Your task to perform on an android device: visit the assistant section in the google photos Image 0: 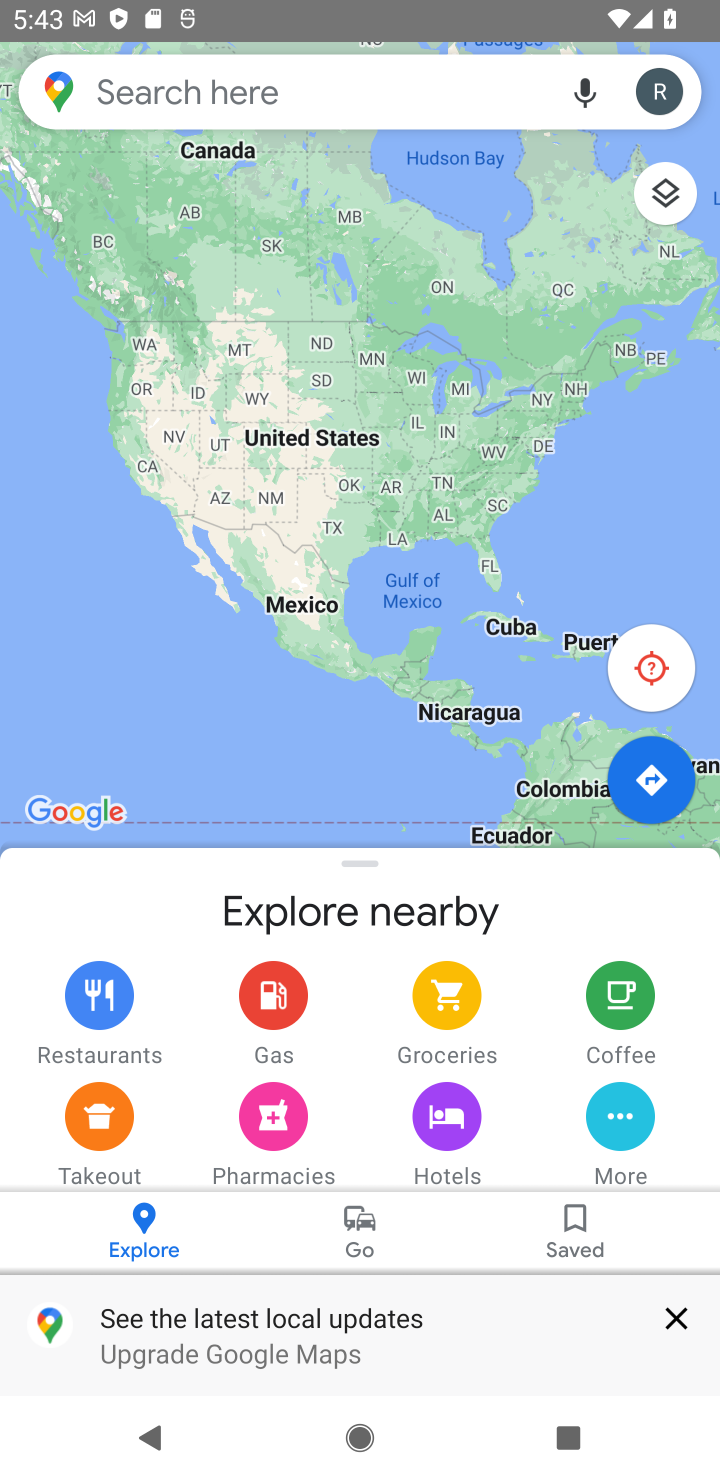
Step 0: press home button
Your task to perform on an android device: visit the assistant section in the google photos Image 1: 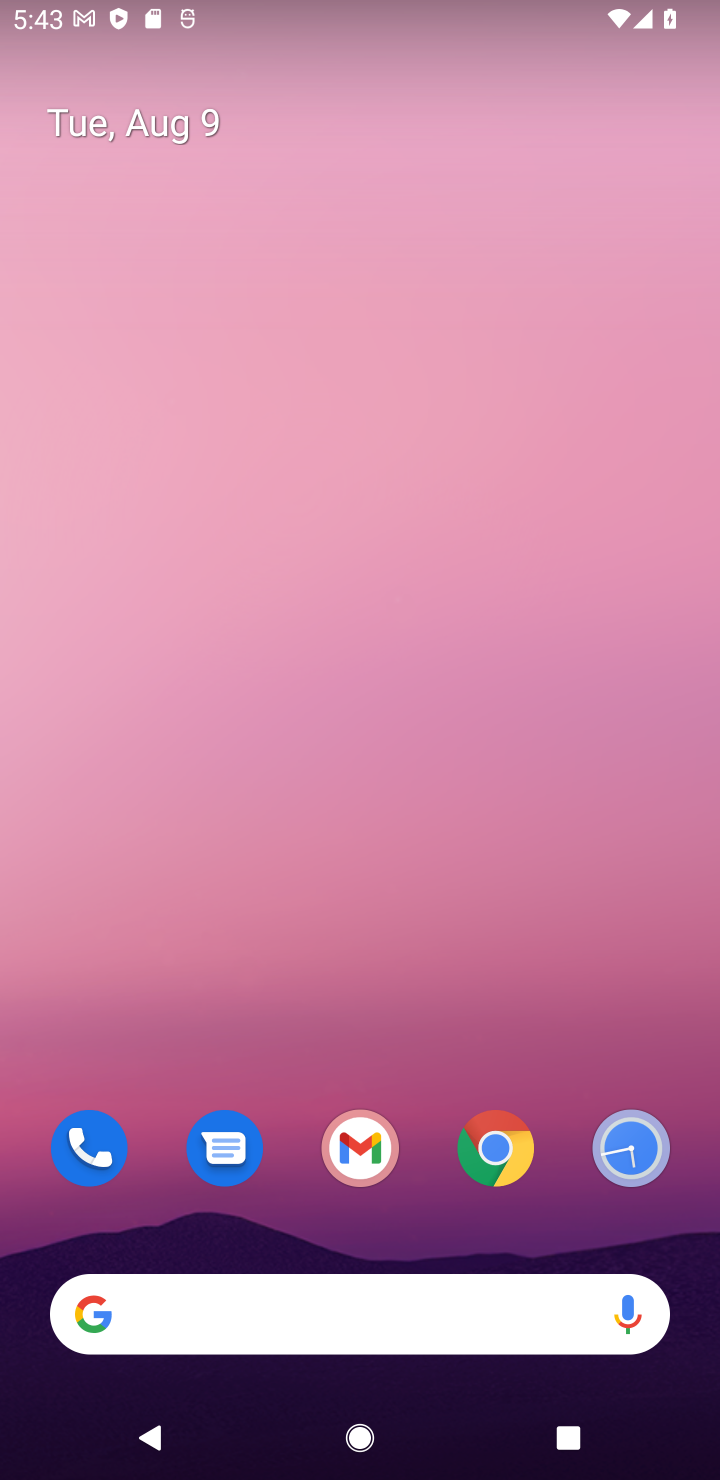
Step 1: drag from (327, 1061) to (318, 232)
Your task to perform on an android device: visit the assistant section in the google photos Image 2: 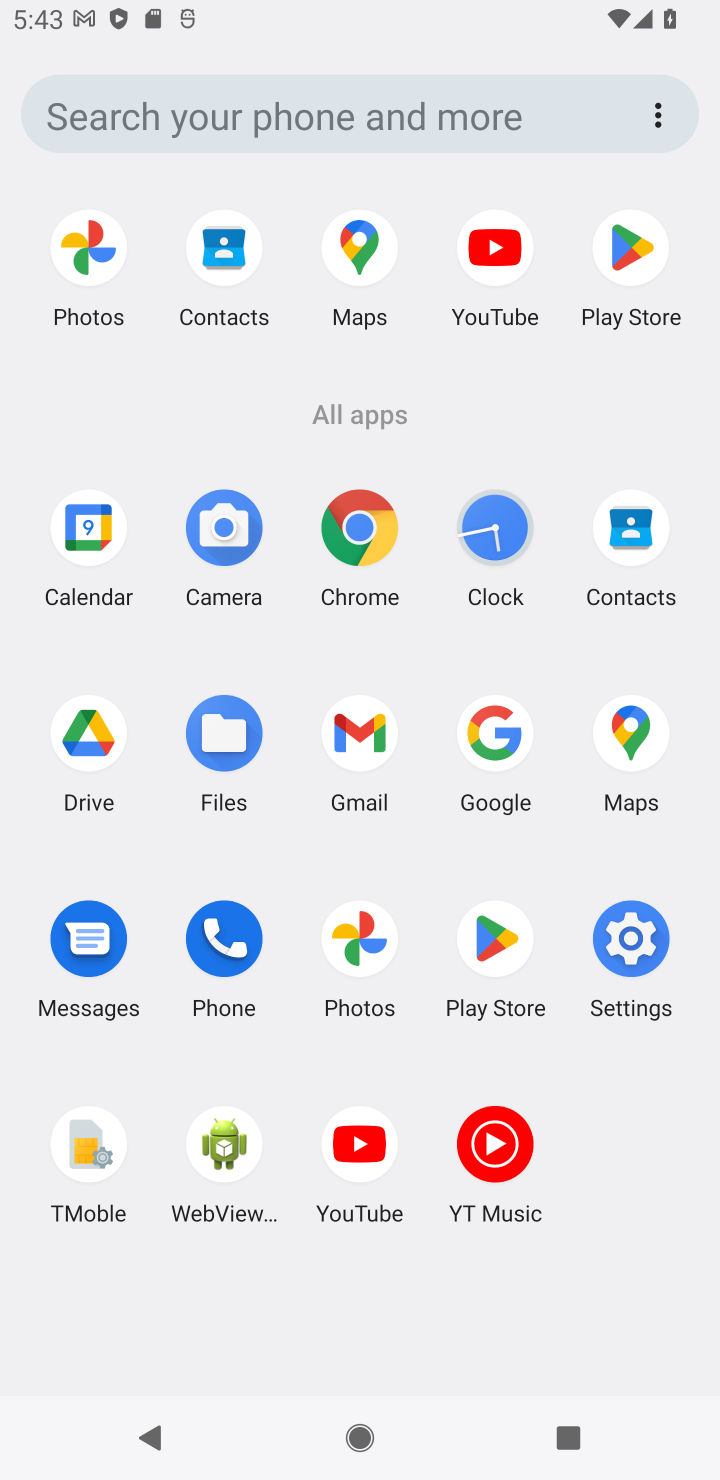
Step 2: click (351, 980)
Your task to perform on an android device: visit the assistant section in the google photos Image 3: 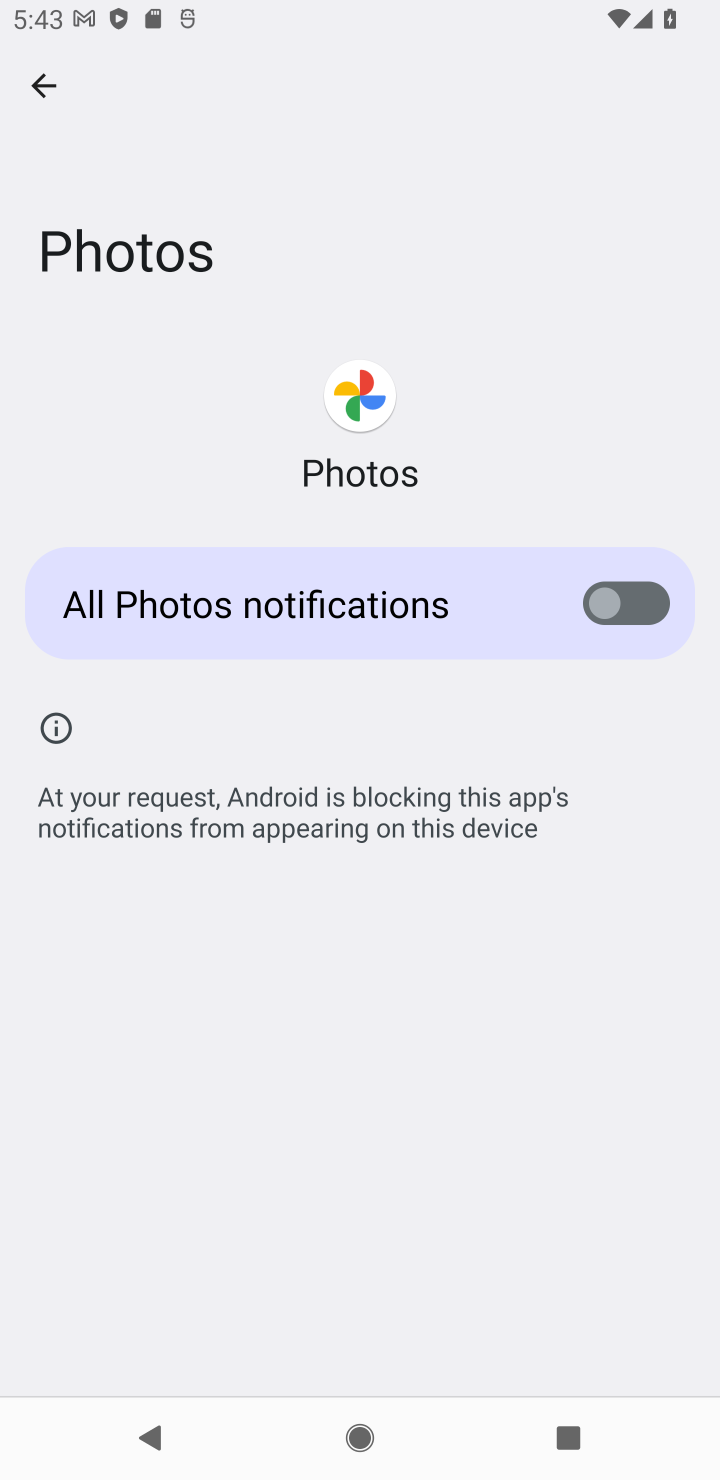
Step 3: click (40, 76)
Your task to perform on an android device: visit the assistant section in the google photos Image 4: 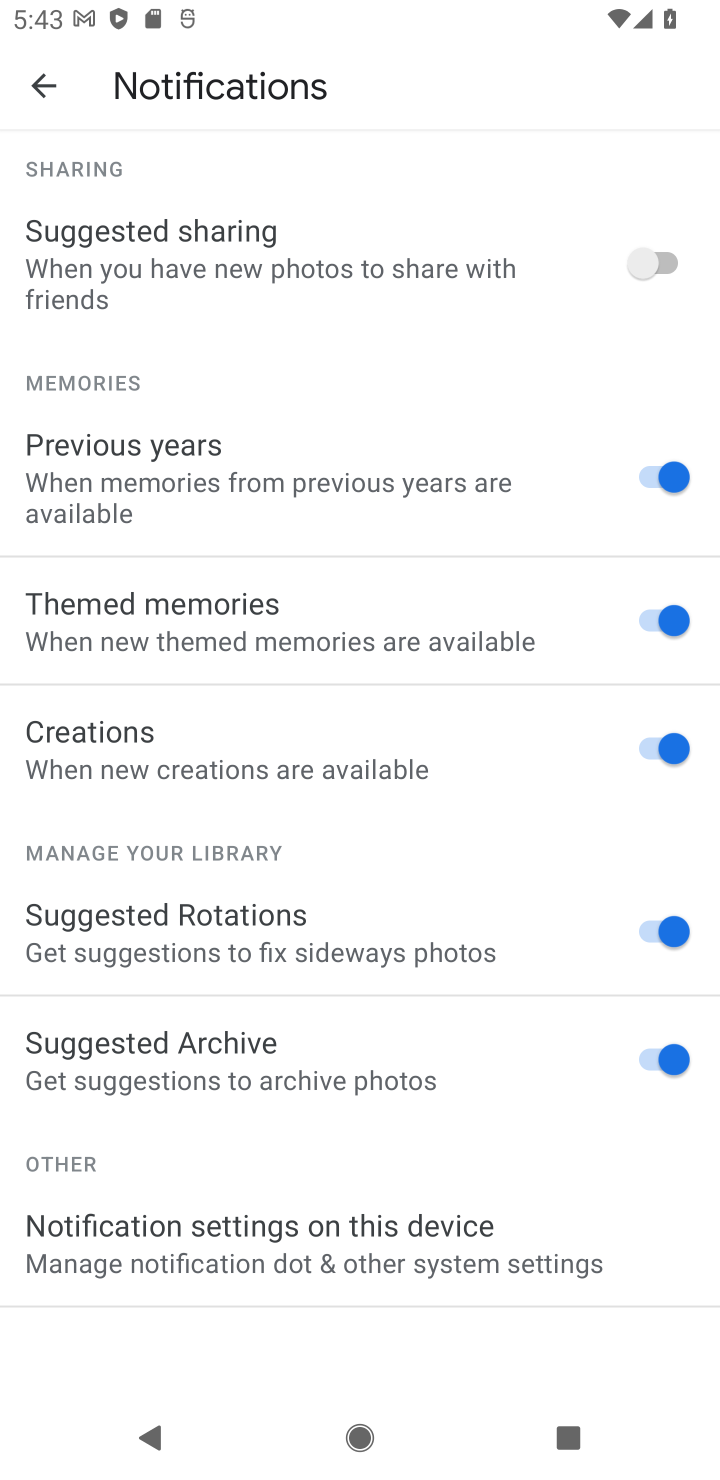
Step 4: click (54, 90)
Your task to perform on an android device: visit the assistant section in the google photos Image 5: 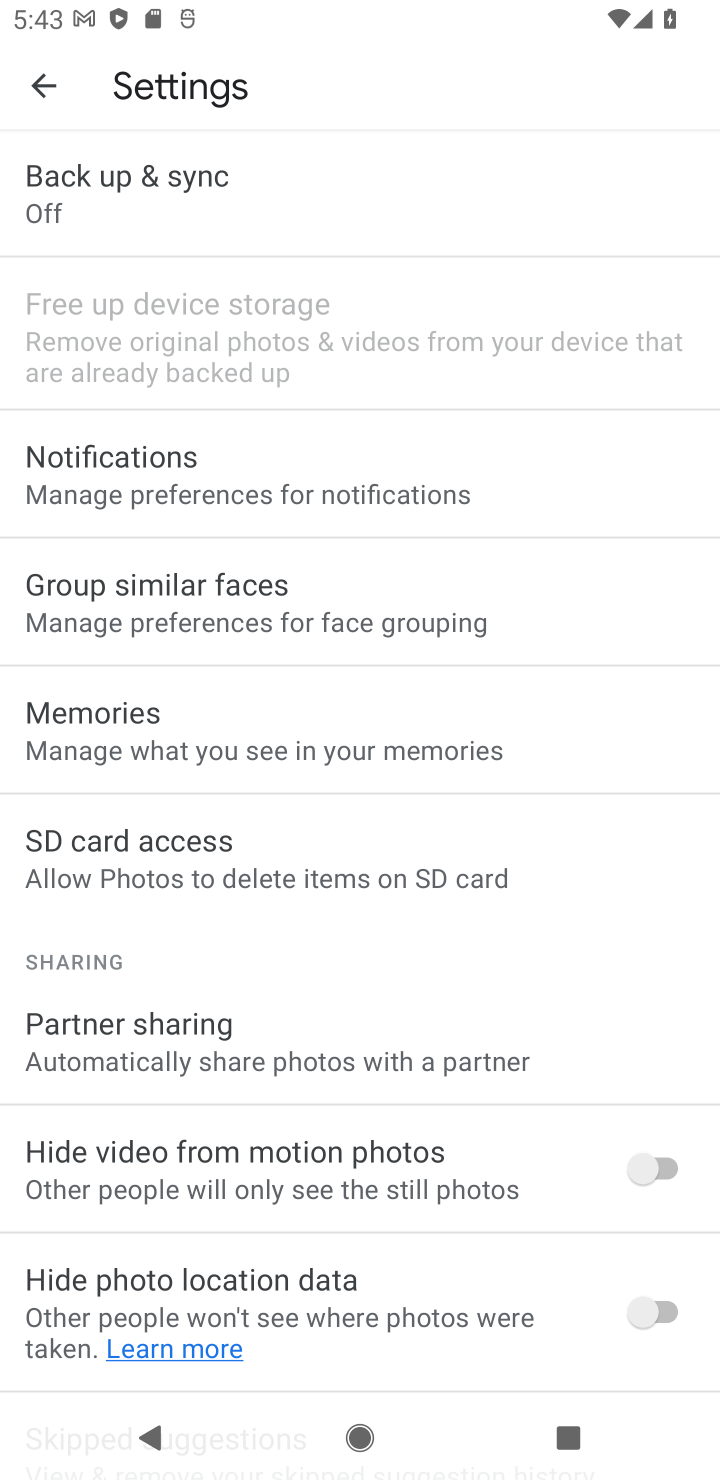
Step 5: click (41, 77)
Your task to perform on an android device: visit the assistant section in the google photos Image 6: 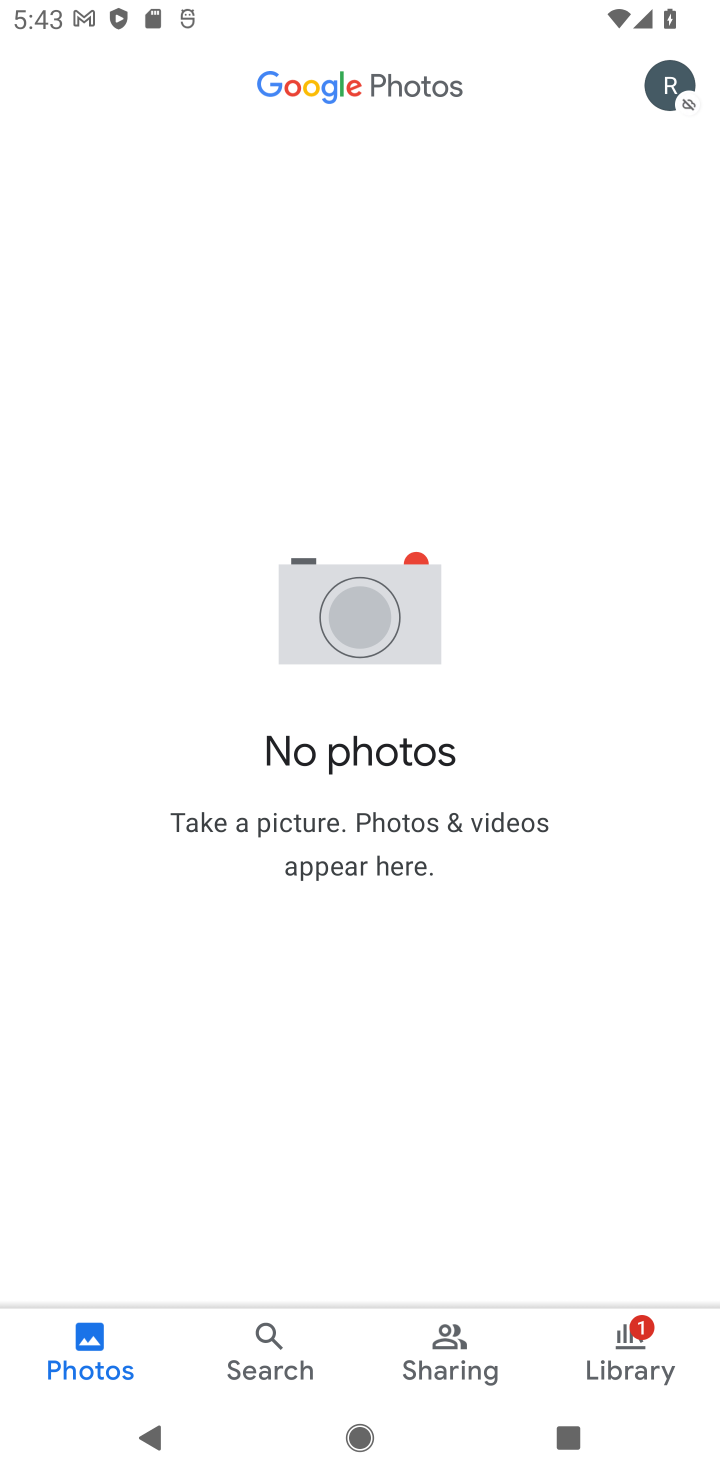
Step 6: click (619, 1327)
Your task to perform on an android device: visit the assistant section in the google photos Image 7: 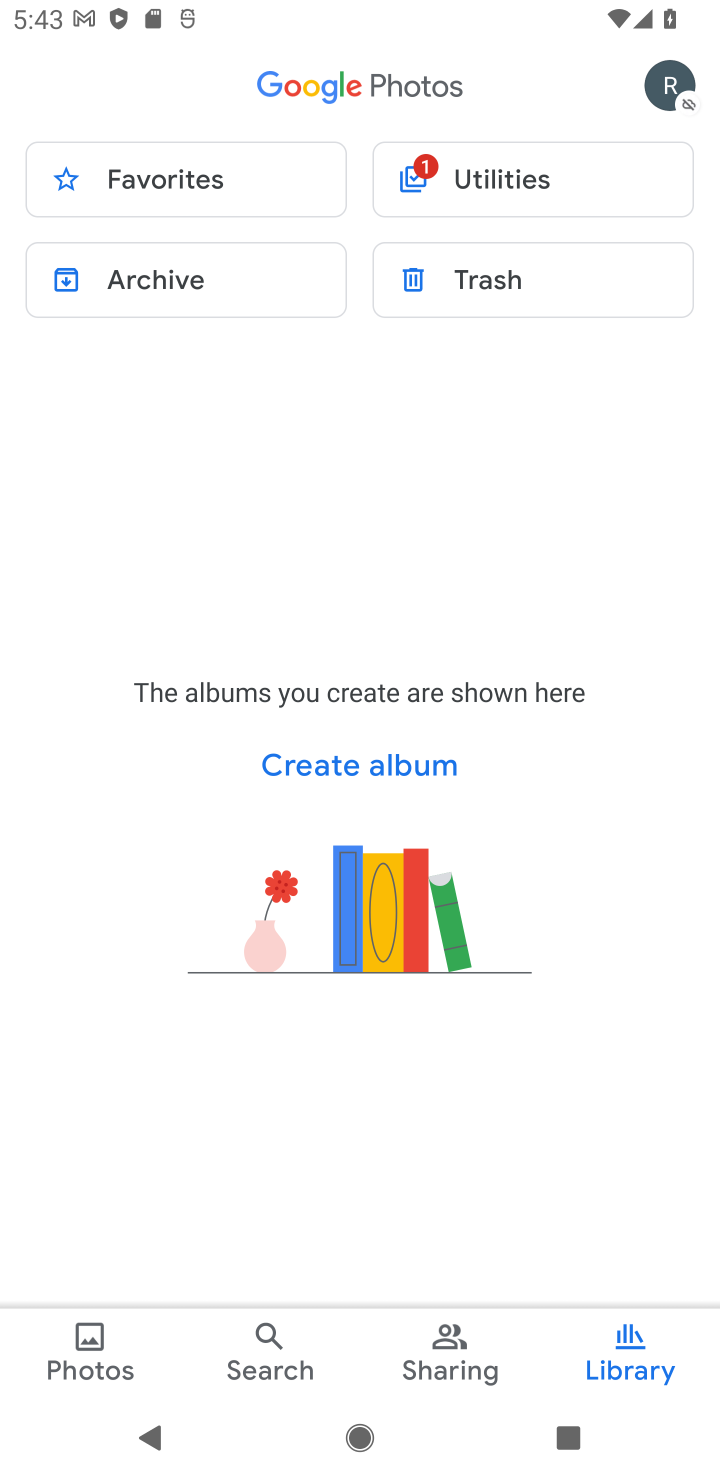
Step 7: click (428, 1348)
Your task to perform on an android device: visit the assistant section in the google photos Image 8: 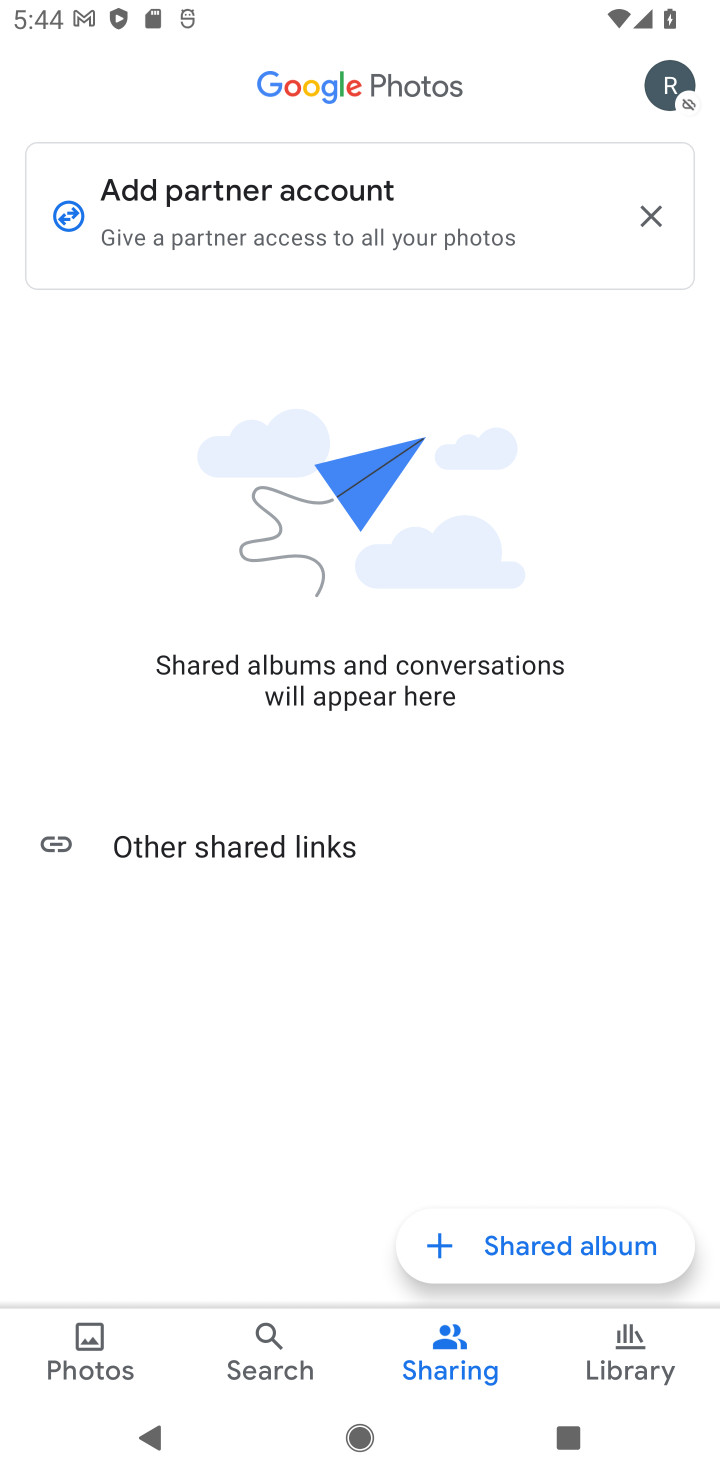
Step 8: click (242, 1341)
Your task to perform on an android device: visit the assistant section in the google photos Image 9: 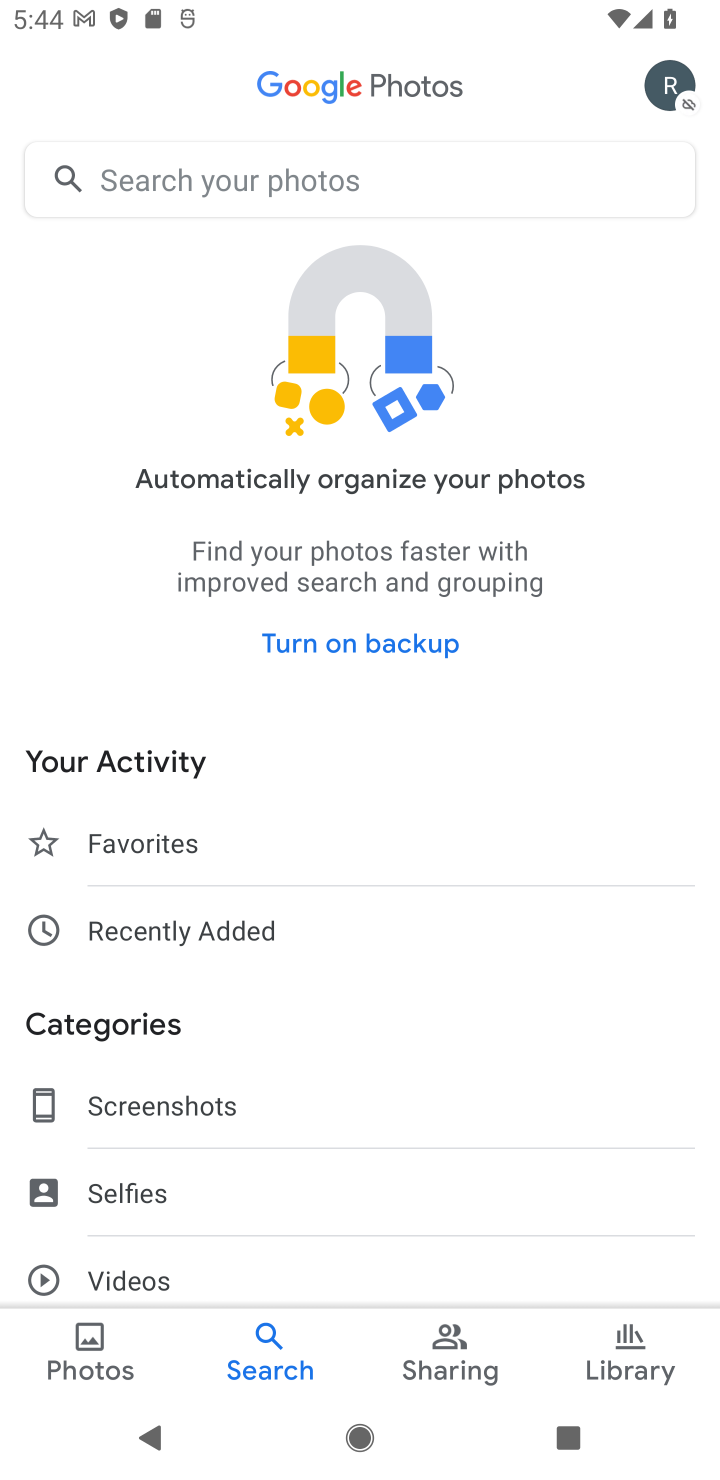
Step 9: task complete